Your task to perform on an android device: Open privacy settings Image 0: 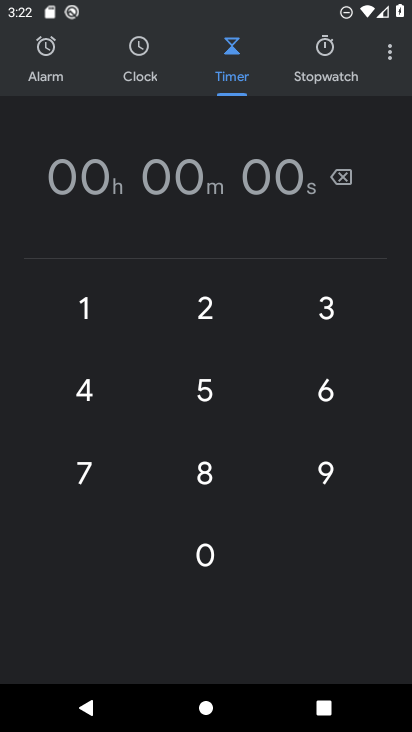
Step 0: press home button
Your task to perform on an android device: Open privacy settings Image 1: 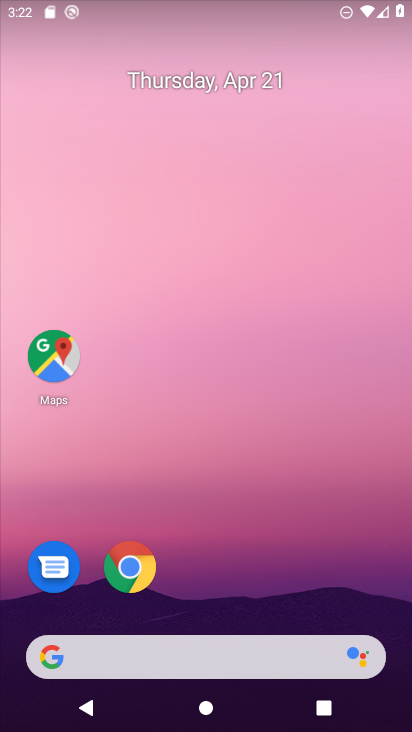
Step 1: press home button
Your task to perform on an android device: Open privacy settings Image 2: 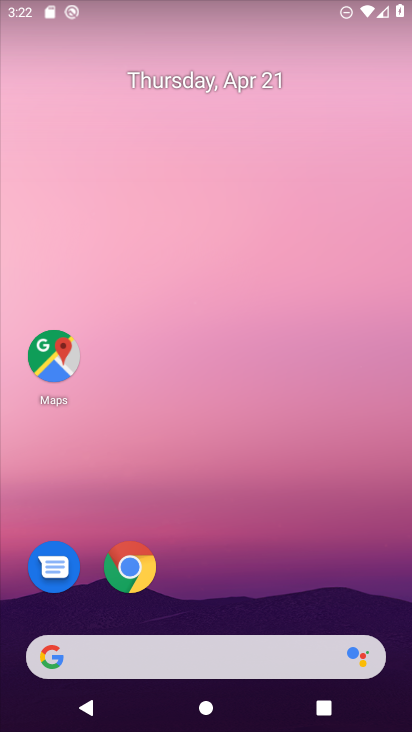
Step 2: drag from (228, 589) to (261, 83)
Your task to perform on an android device: Open privacy settings Image 3: 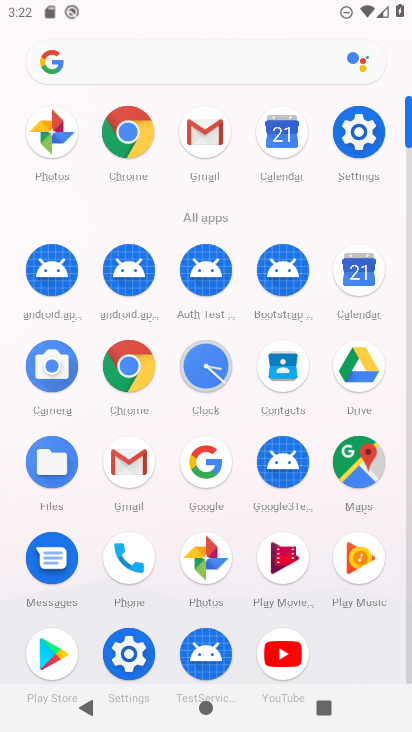
Step 3: drag from (252, 269) to (263, 214)
Your task to perform on an android device: Open privacy settings Image 4: 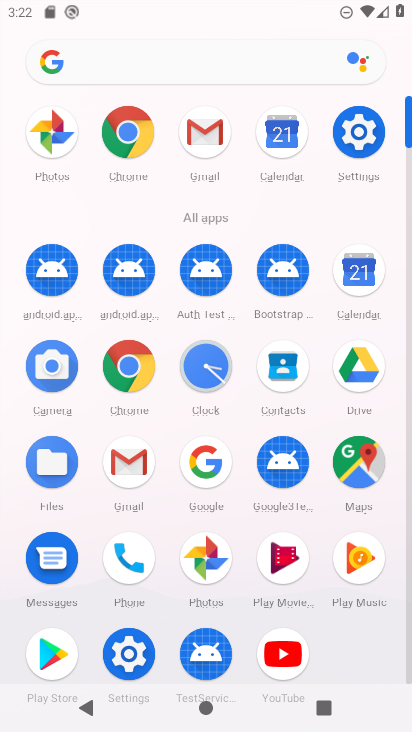
Step 4: click (132, 648)
Your task to perform on an android device: Open privacy settings Image 5: 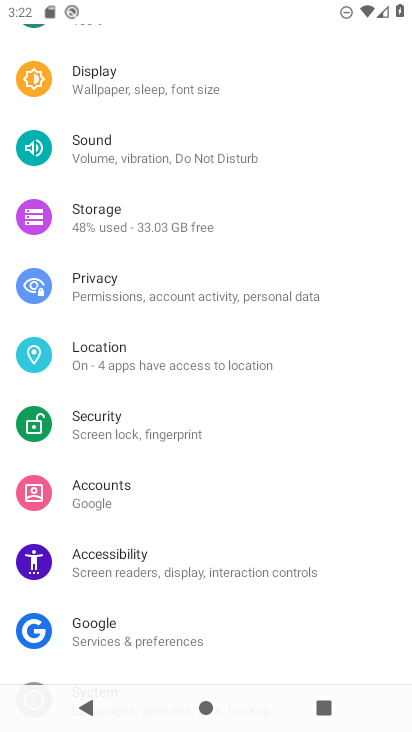
Step 5: click (102, 294)
Your task to perform on an android device: Open privacy settings Image 6: 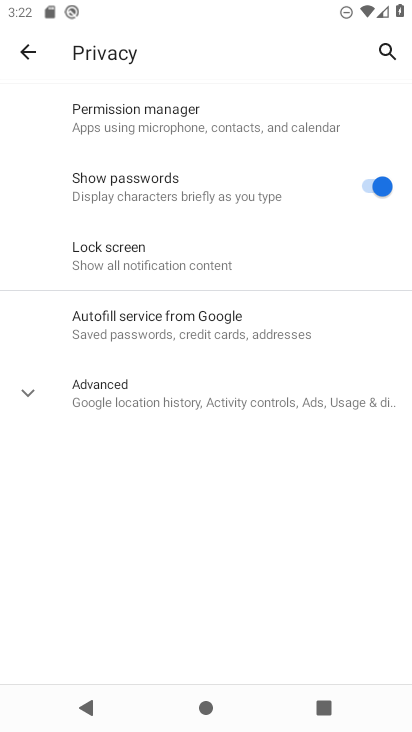
Step 6: task complete